Your task to perform on an android device: remove spam from my inbox in the gmail app Image 0: 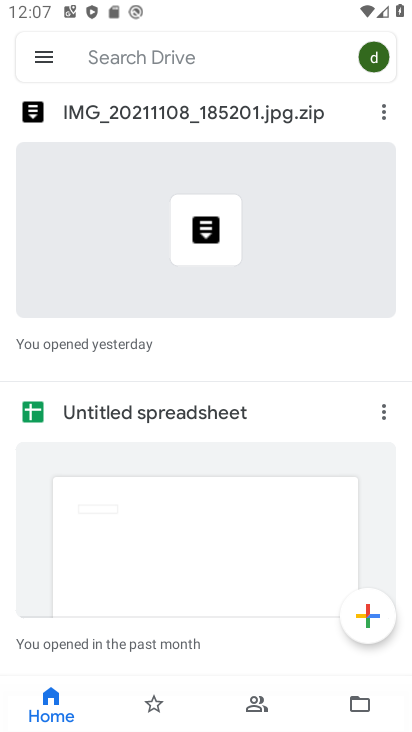
Step 0: press home button
Your task to perform on an android device: remove spam from my inbox in the gmail app Image 1: 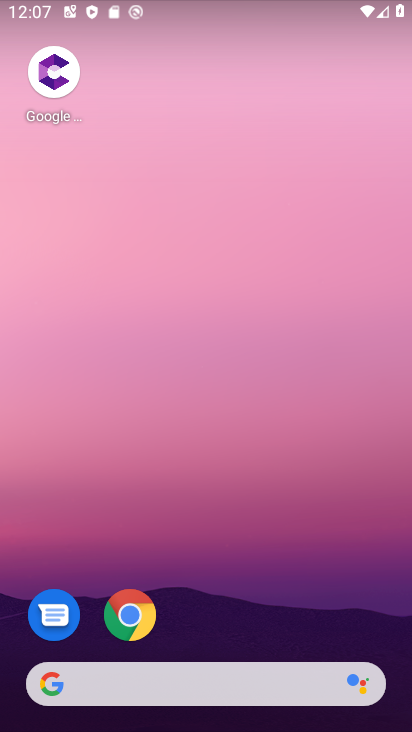
Step 1: click (377, 36)
Your task to perform on an android device: remove spam from my inbox in the gmail app Image 2: 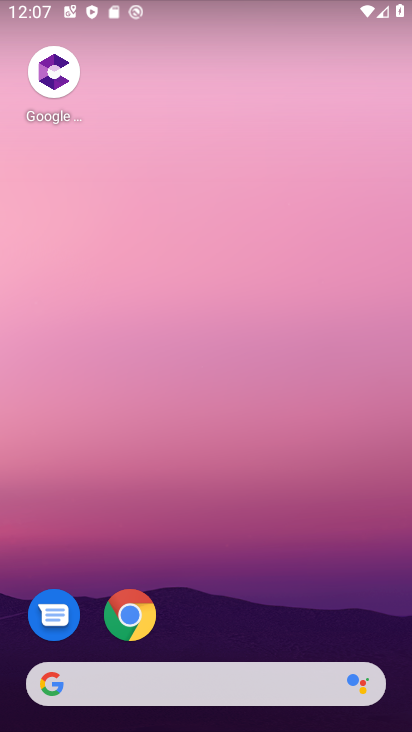
Step 2: drag from (235, 570) to (241, 228)
Your task to perform on an android device: remove spam from my inbox in the gmail app Image 3: 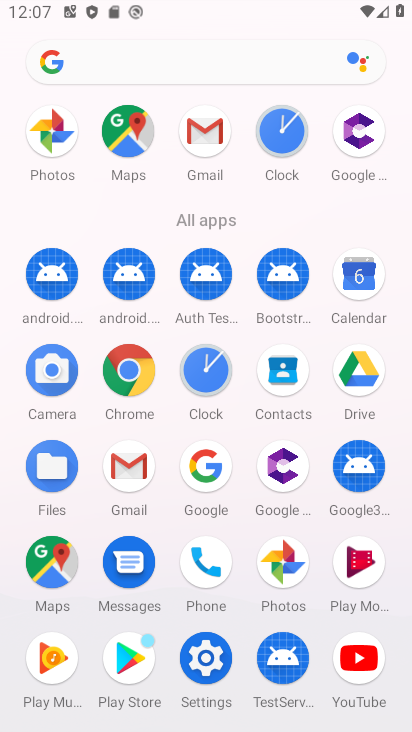
Step 3: click (201, 155)
Your task to perform on an android device: remove spam from my inbox in the gmail app Image 4: 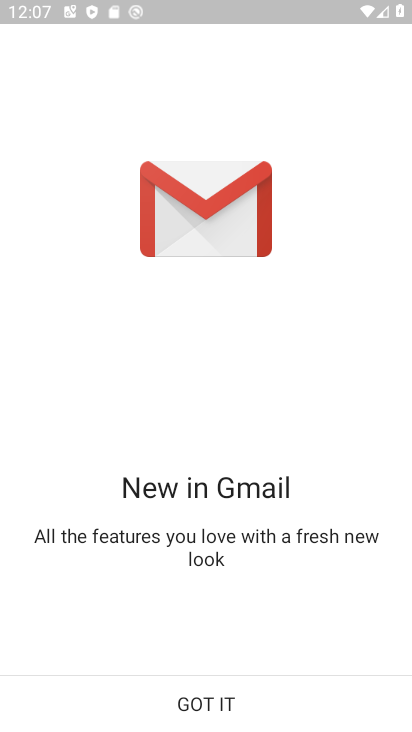
Step 4: click (202, 709)
Your task to perform on an android device: remove spam from my inbox in the gmail app Image 5: 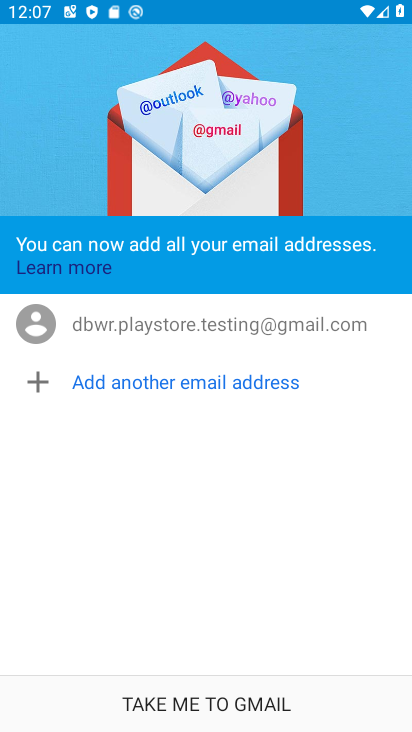
Step 5: click (203, 705)
Your task to perform on an android device: remove spam from my inbox in the gmail app Image 6: 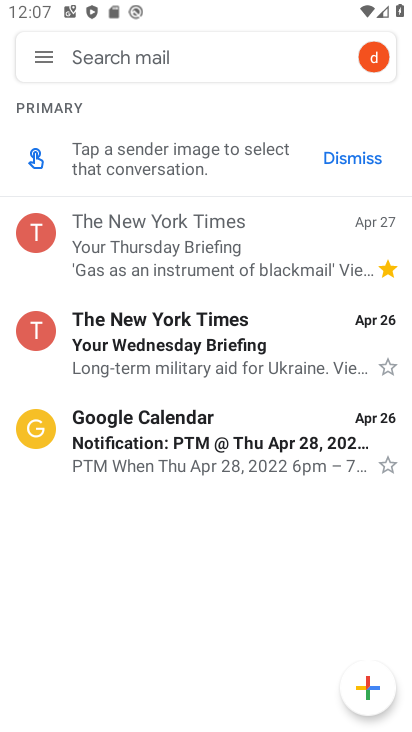
Step 6: click (34, 52)
Your task to perform on an android device: remove spam from my inbox in the gmail app Image 7: 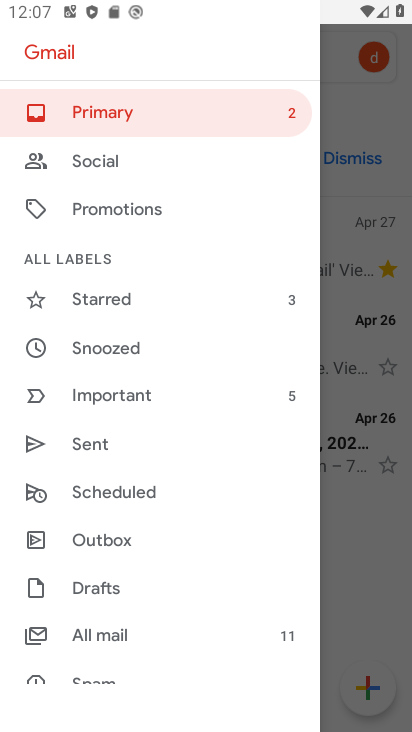
Step 7: drag from (120, 620) to (104, 270)
Your task to perform on an android device: remove spam from my inbox in the gmail app Image 8: 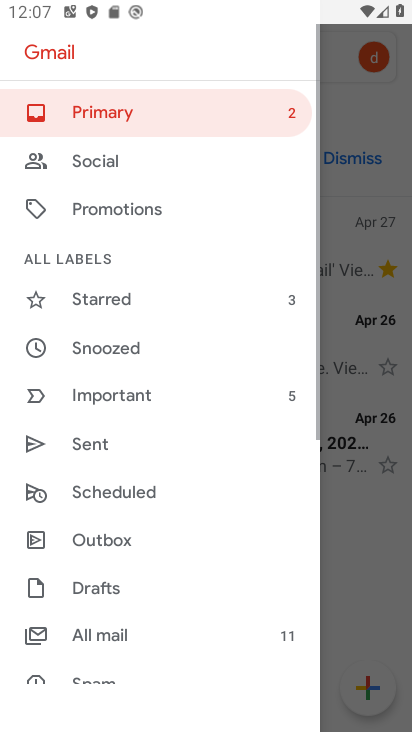
Step 8: drag from (99, 659) to (157, 405)
Your task to perform on an android device: remove spam from my inbox in the gmail app Image 9: 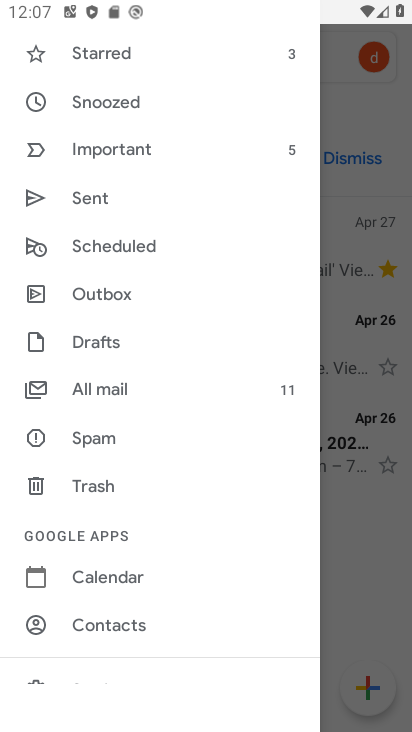
Step 9: click (108, 443)
Your task to perform on an android device: remove spam from my inbox in the gmail app Image 10: 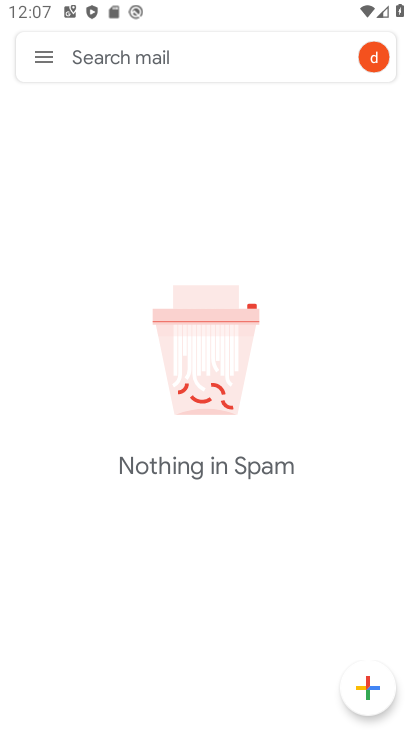
Step 10: task complete